Your task to perform on an android device: Open Youtube and go to "Your channel" Image 0: 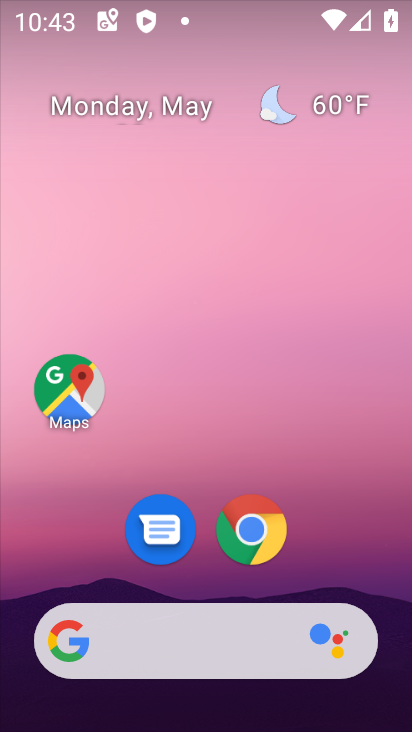
Step 0: drag from (359, 550) to (262, 118)
Your task to perform on an android device: Open Youtube and go to "Your channel" Image 1: 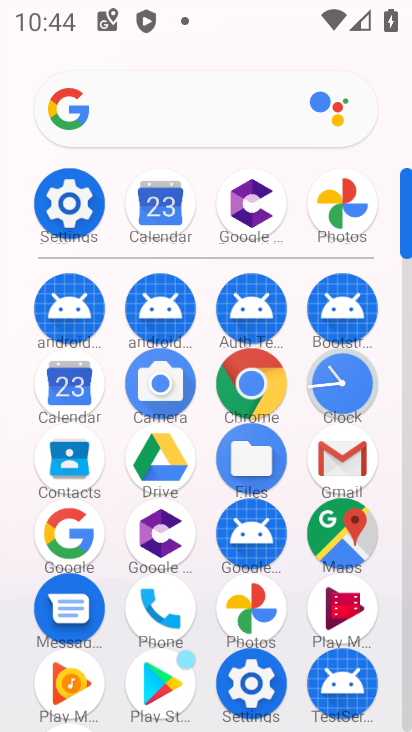
Step 1: drag from (212, 644) to (188, 273)
Your task to perform on an android device: Open Youtube and go to "Your channel" Image 2: 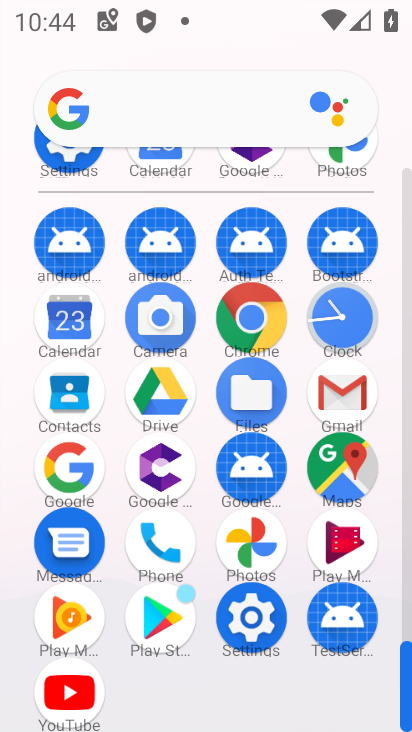
Step 2: click (61, 692)
Your task to perform on an android device: Open Youtube and go to "Your channel" Image 3: 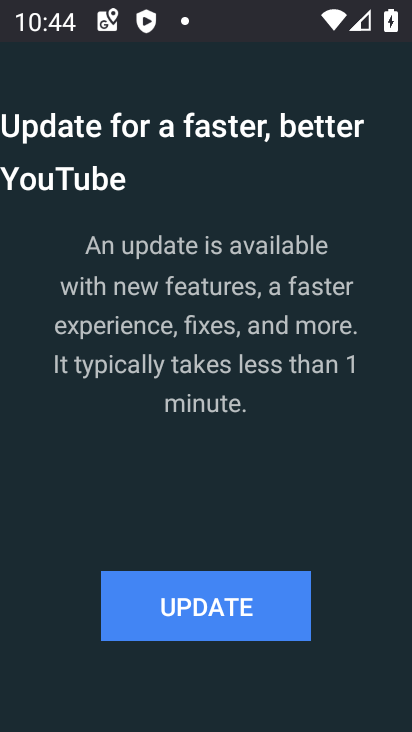
Step 3: click (218, 609)
Your task to perform on an android device: Open Youtube and go to "Your channel" Image 4: 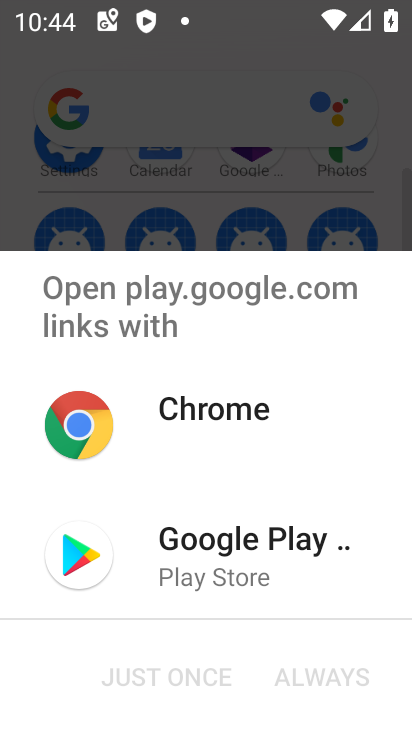
Step 4: click (182, 544)
Your task to perform on an android device: Open Youtube and go to "Your channel" Image 5: 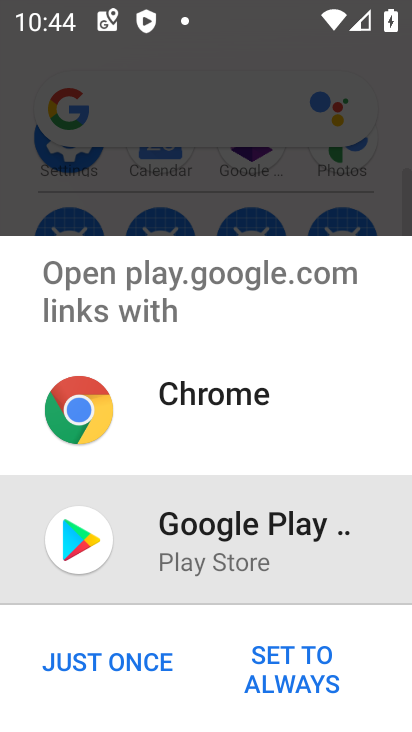
Step 5: click (114, 660)
Your task to perform on an android device: Open Youtube and go to "Your channel" Image 6: 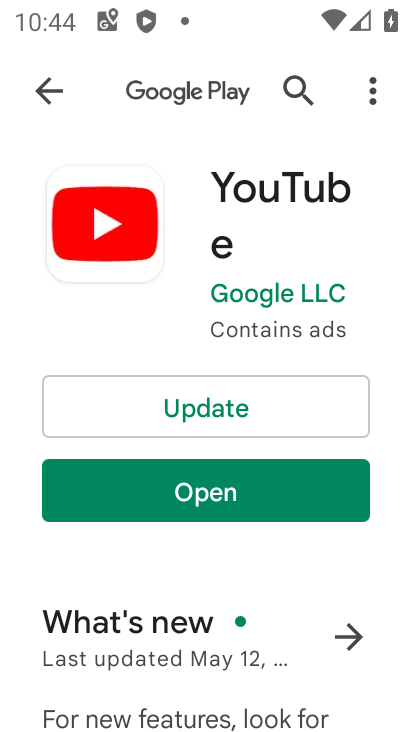
Step 6: click (211, 395)
Your task to perform on an android device: Open Youtube and go to "Your channel" Image 7: 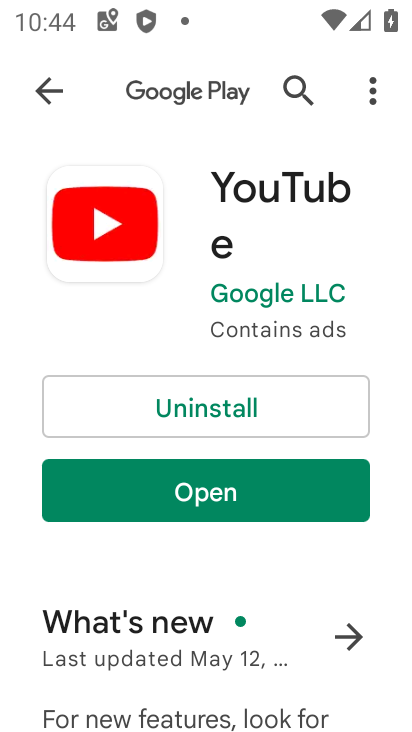
Step 7: click (208, 494)
Your task to perform on an android device: Open Youtube and go to "Your channel" Image 8: 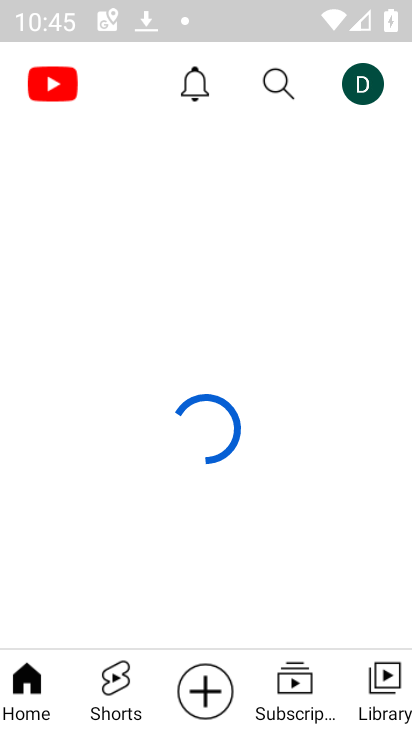
Step 8: click (367, 80)
Your task to perform on an android device: Open Youtube and go to "Your channel" Image 9: 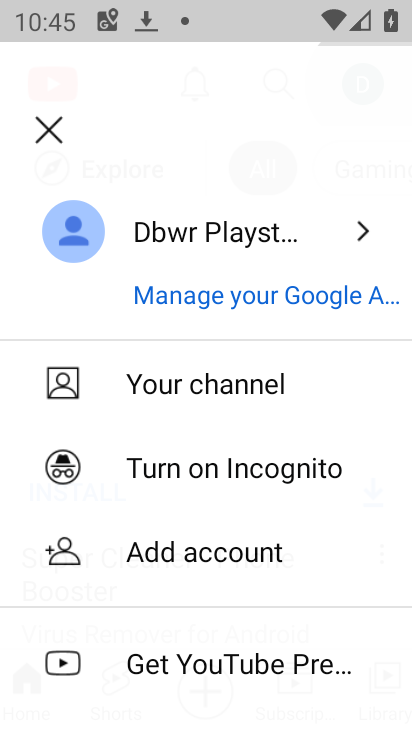
Step 9: click (367, 80)
Your task to perform on an android device: Open Youtube and go to "Your channel" Image 10: 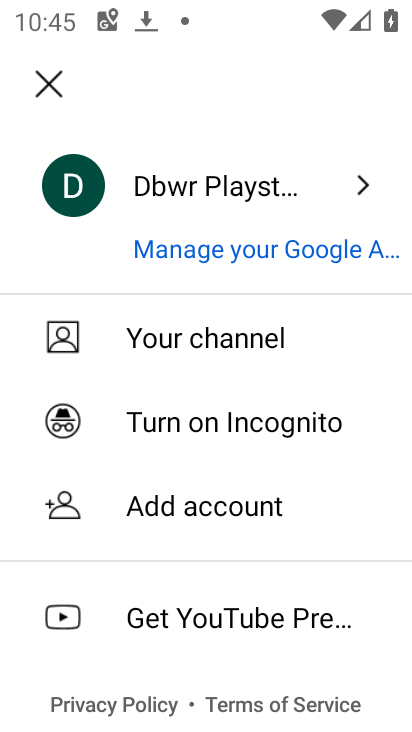
Step 10: click (214, 334)
Your task to perform on an android device: Open Youtube and go to "Your channel" Image 11: 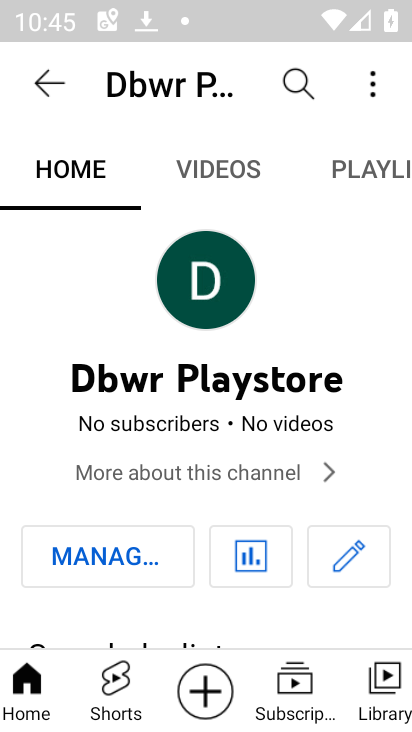
Step 11: task complete